Your task to perform on an android device: Go to notification settings Image 0: 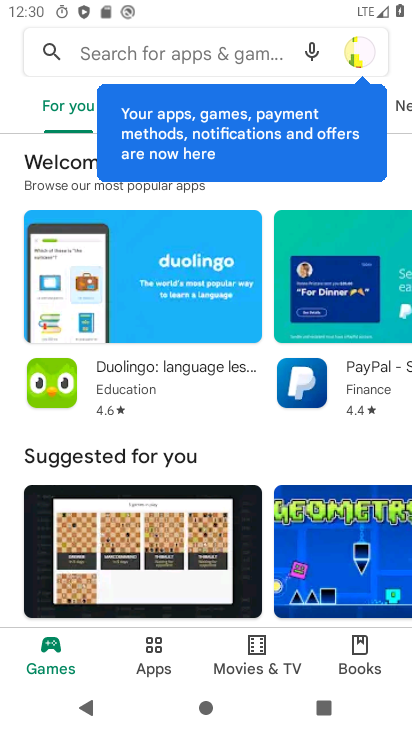
Step 0: press home button
Your task to perform on an android device: Go to notification settings Image 1: 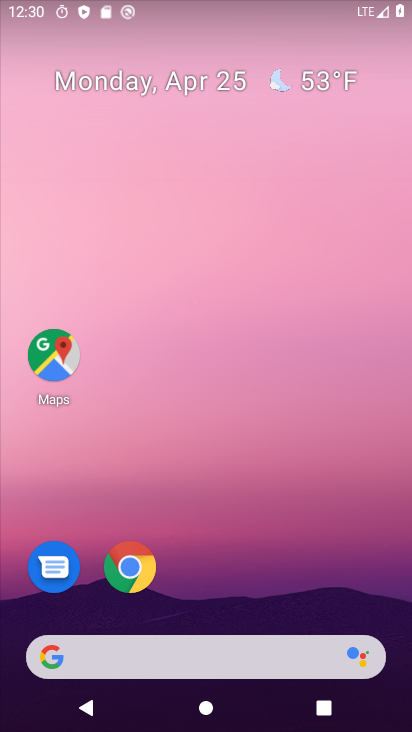
Step 1: drag from (295, 584) to (285, 0)
Your task to perform on an android device: Go to notification settings Image 2: 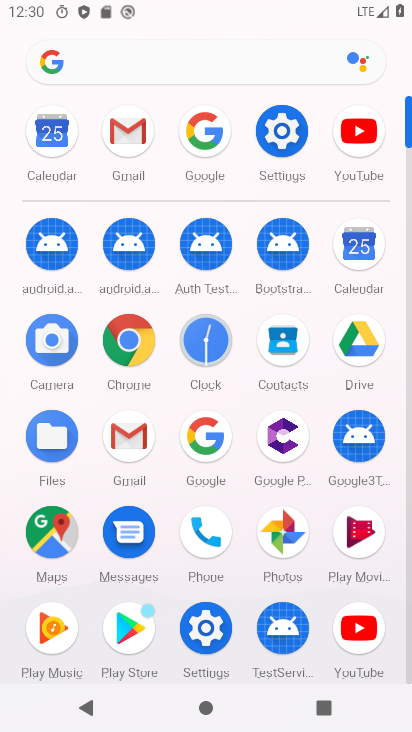
Step 2: click (283, 139)
Your task to perform on an android device: Go to notification settings Image 3: 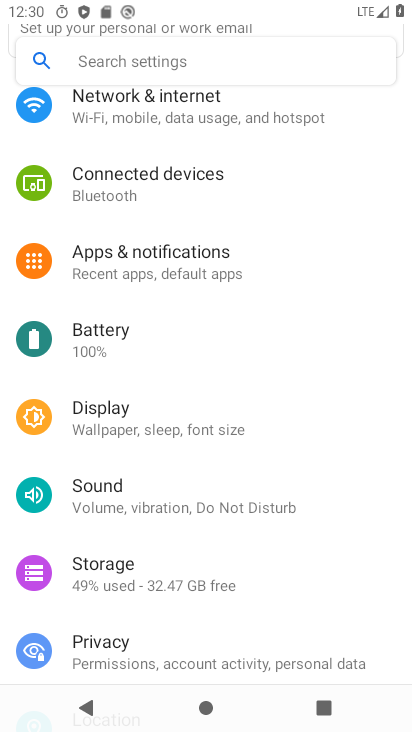
Step 3: click (212, 244)
Your task to perform on an android device: Go to notification settings Image 4: 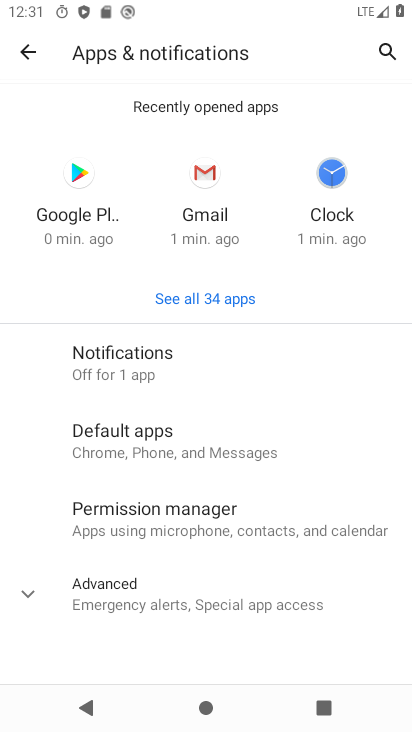
Step 4: task complete